Your task to perform on an android device: turn on priority inbox in the gmail app Image 0: 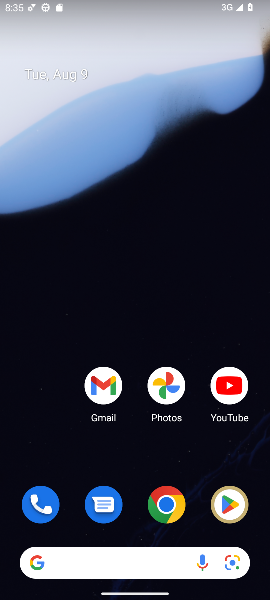
Step 0: click (102, 384)
Your task to perform on an android device: turn on priority inbox in the gmail app Image 1: 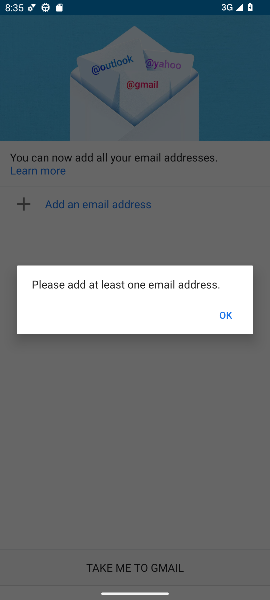
Step 1: task complete